Your task to perform on an android device: View the shopping cart on amazon. Search for "usb-c to usb-a" on amazon, select the first entry, add it to the cart, then select checkout. Image 0: 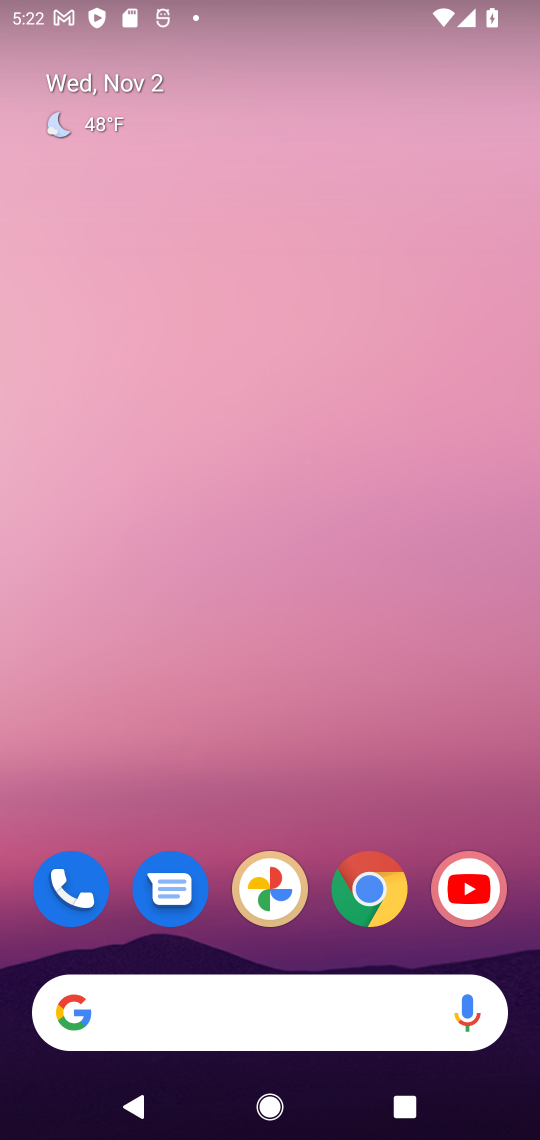
Step 0: click (370, 887)
Your task to perform on an android device: View the shopping cart on amazon. Search for "usb-c to usb-a" on amazon, select the first entry, add it to the cart, then select checkout. Image 1: 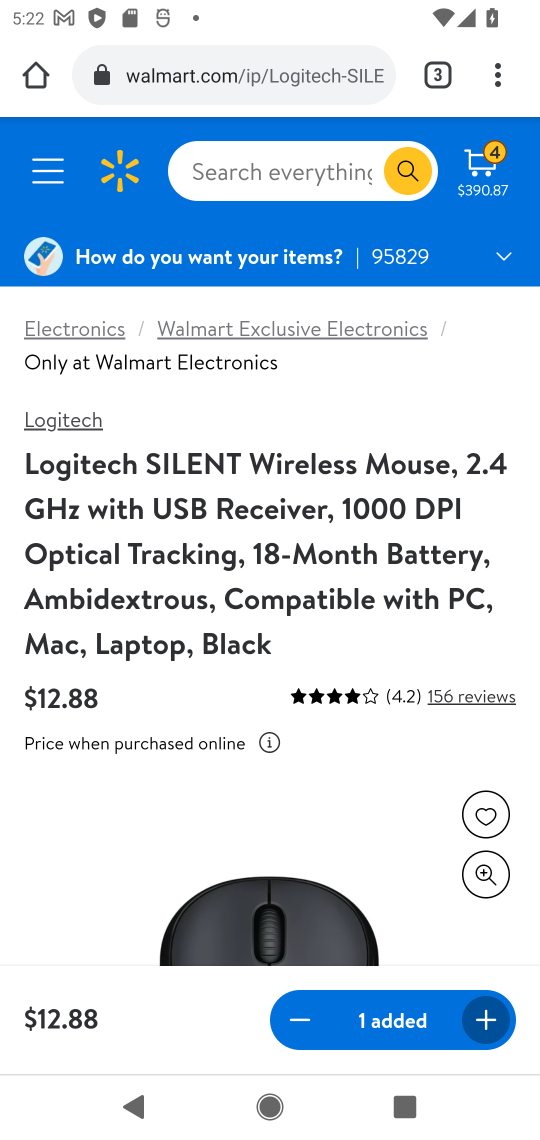
Step 1: drag from (500, 88) to (296, 147)
Your task to perform on an android device: View the shopping cart on amazon. Search for "usb-c to usb-a" on amazon, select the first entry, add it to the cart, then select checkout. Image 2: 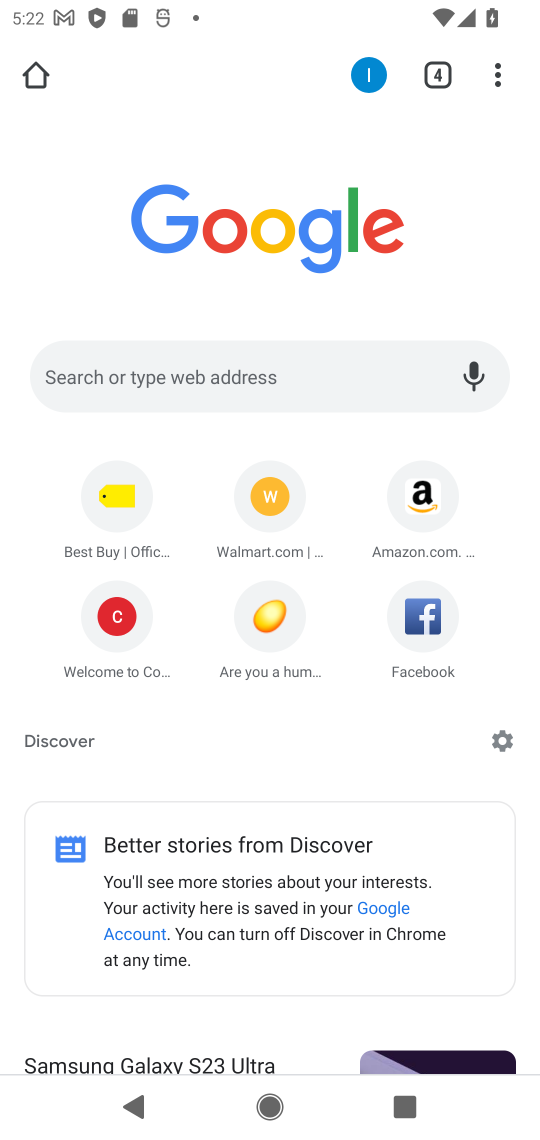
Step 2: click (412, 492)
Your task to perform on an android device: View the shopping cart on amazon. Search for "usb-c to usb-a" on amazon, select the first entry, add it to the cart, then select checkout. Image 3: 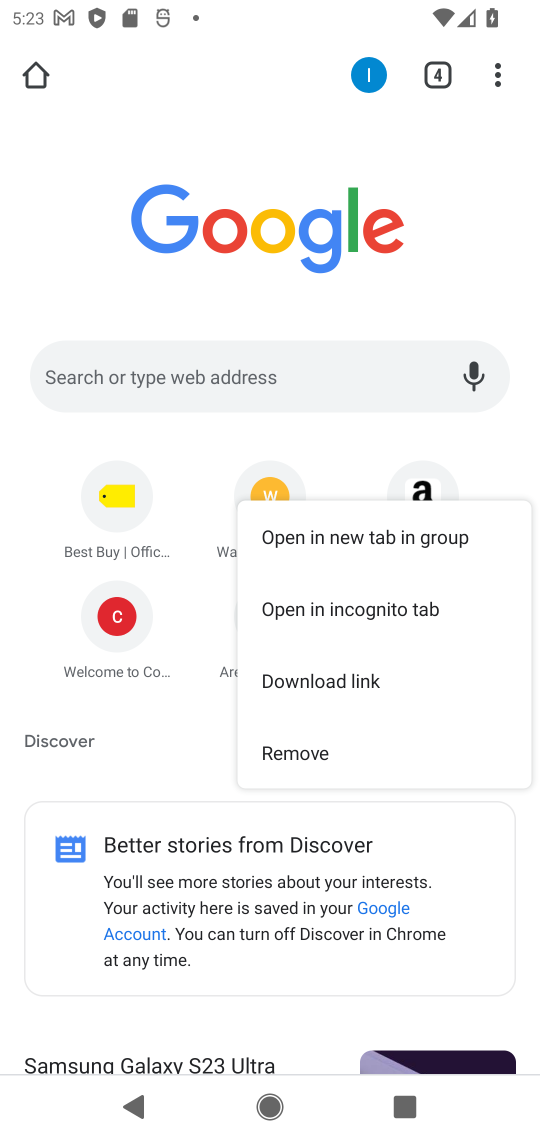
Step 3: click (423, 492)
Your task to perform on an android device: View the shopping cart on amazon. Search for "usb-c to usb-a" on amazon, select the first entry, add it to the cart, then select checkout. Image 4: 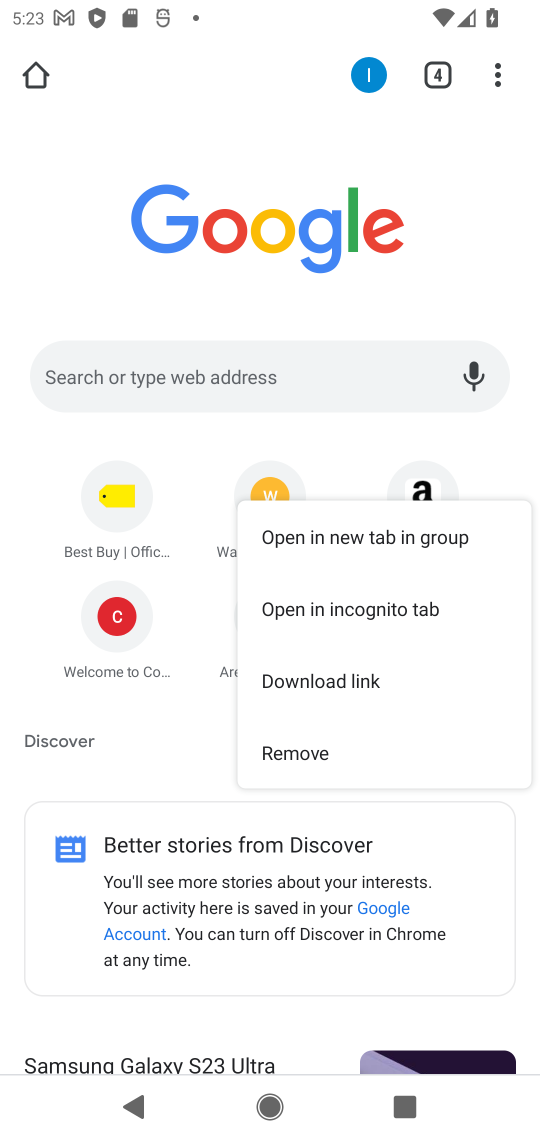
Step 4: click (423, 492)
Your task to perform on an android device: View the shopping cart on amazon. Search for "usb-c to usb-a" on amazon, select the first entry, add it to the cart, then select checkout. Image 5: 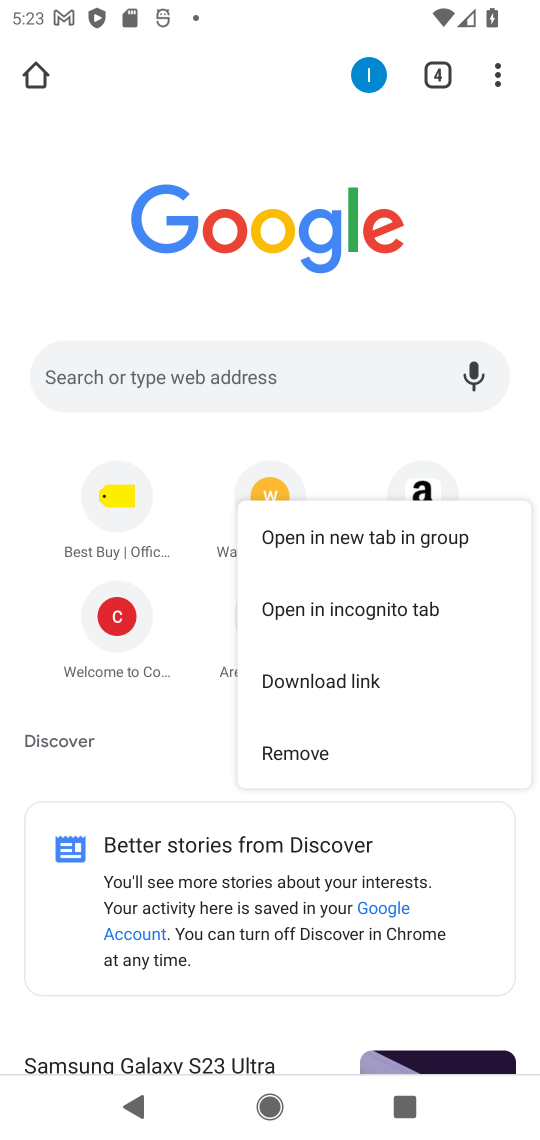
Step 5: drag from (333, 414) to (494, 58)
Your task to perform on an android device: View the shopping cart on amazon. Search for "usb-c to usb-a" on amazon, select the first entry, add it to the cart, then select checkout. Image 6: 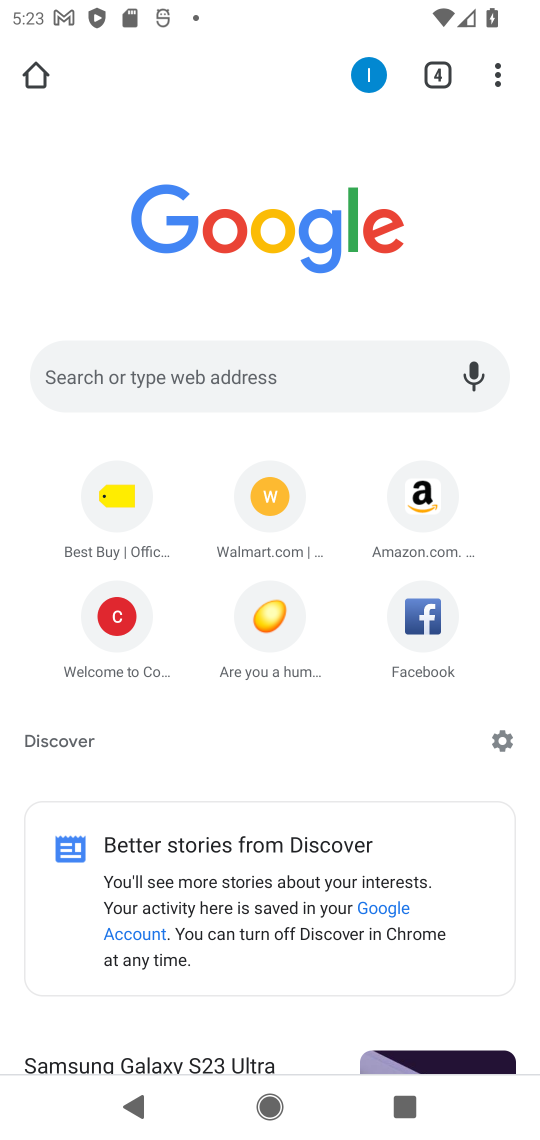
Step 6: click (422, 503)
Your task to perform on an android device: View the shopping cart on amazon. Search for "usb-c to usb-a" on amazon, select the first entry, add it to the cart, then select checkout. Image 7: 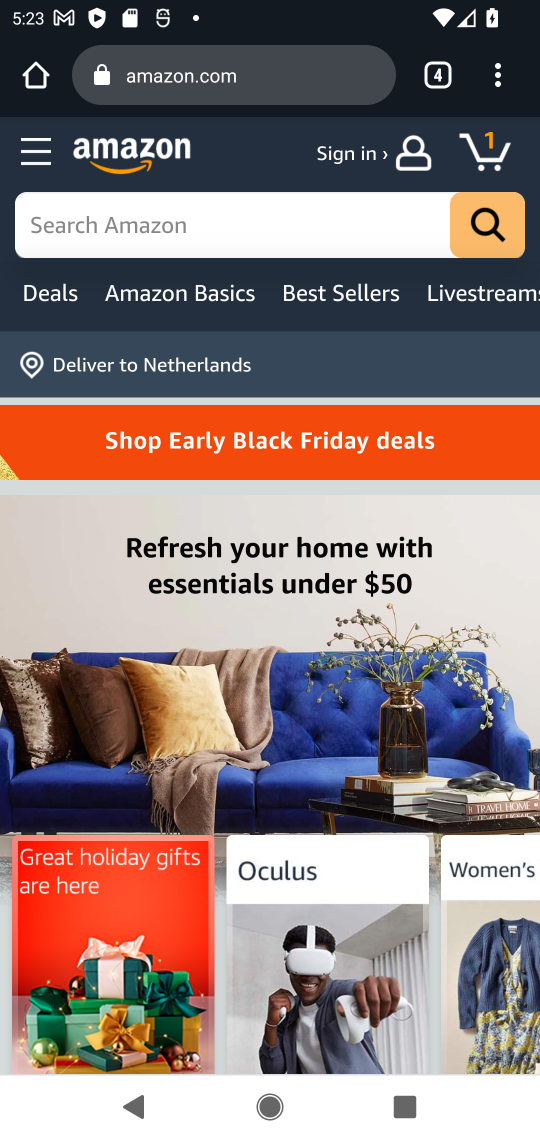
Step 7: click (176, 76)
Your task to perform on an android device: View the shopping cart on amazon. Search for "usb-c to usb-a" on amazon, select the first entry, add it to the cart, then select checkout. Image 8: 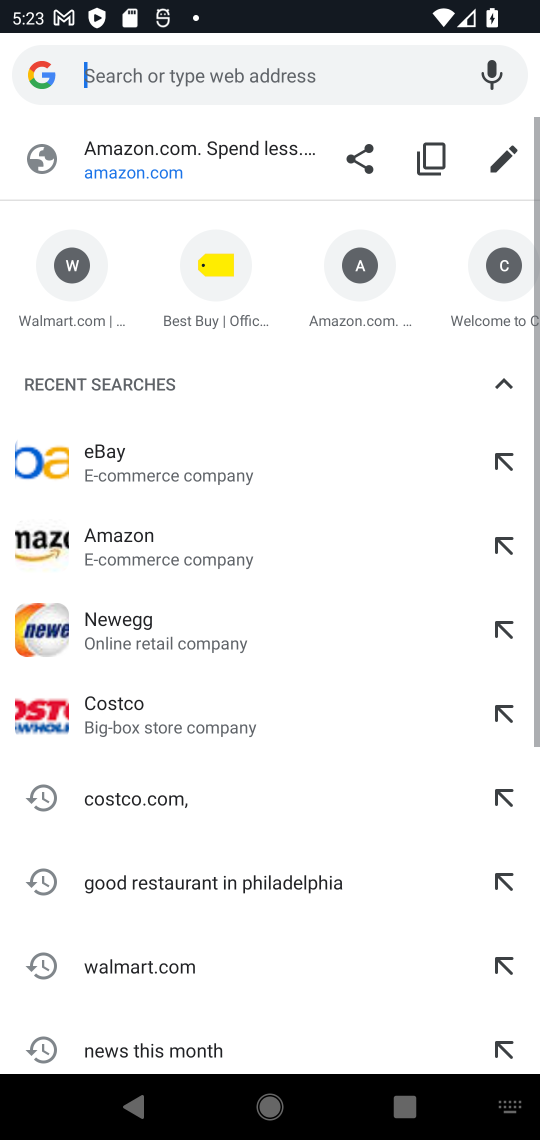
Step 8: press back button
Your task to perform on an android device: View the shopping cart on amazon. Search for "usb-c to usb-a" on amazon, select the first entry, add it to the cart, then select checkout. Image 9: 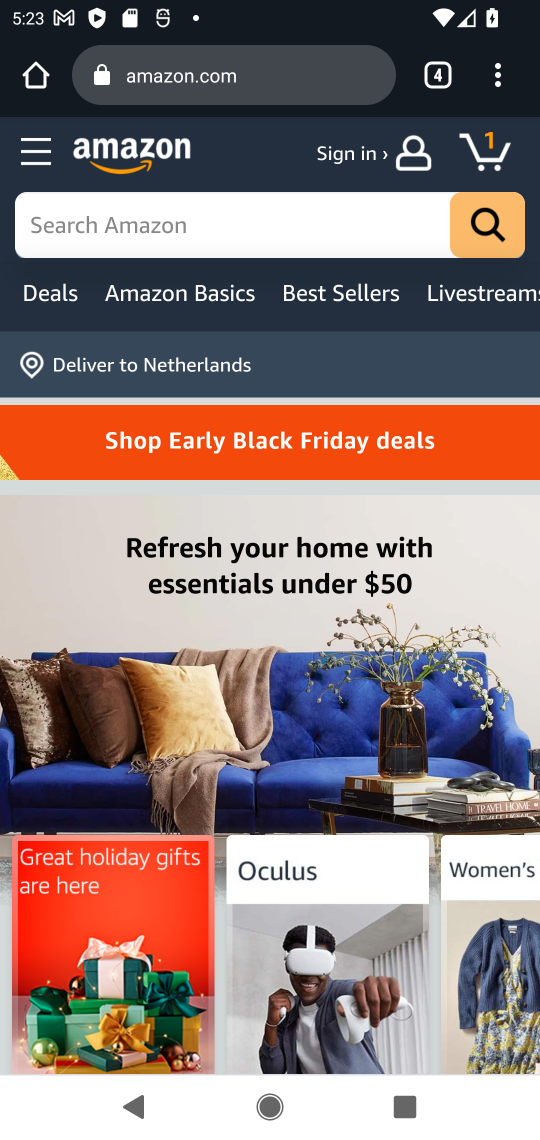
Step 9: click (210, 231)
Your task to perform on an android device: View the shopping cart on amazon. Search for "usb-c to usb-a" on amazon, select the first entry, add it to the cart, then select checkout. Image 10: 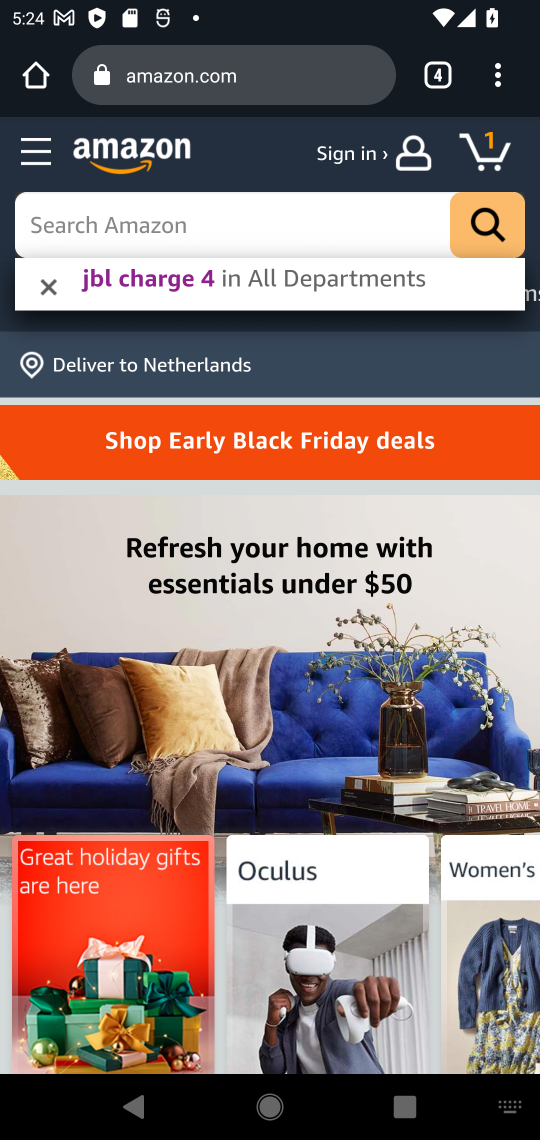
Step 10: type "usb-c to usb-a"
Your task to perform on an android device: View the shopping cart on amazon. Search for "usb-c to usb-a" on amazon, select the first entry, add it to the cart, then select checkout. Image 11: 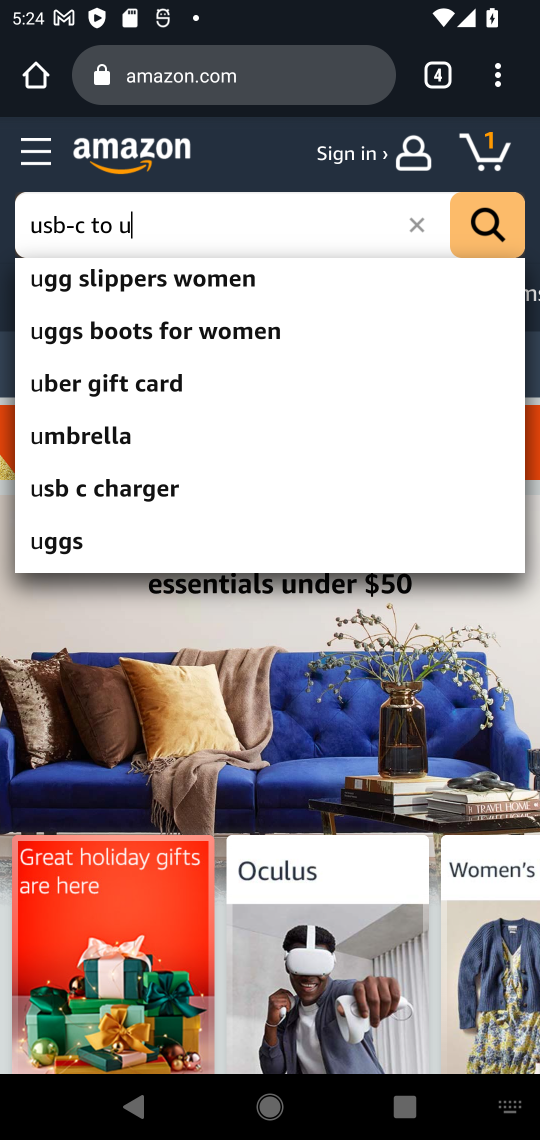
Step 11: press enter
Your task to perform on an android device: View the shopping cart on amazon. Search for "usb-c to usb-a" on amazon, select the first entry, add it to the cart, then select checkout. Image 12: 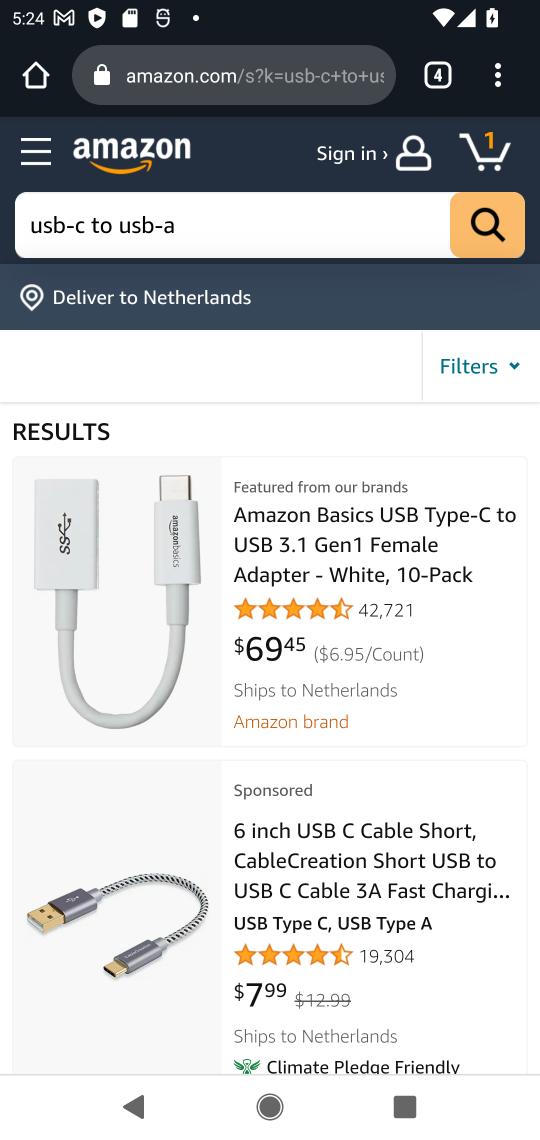
Step 12: click (346, 592)
Your task to perform on an android device: View the shopping cart on amazon. Search for "usb-c to usb-a" on amazon, select the first entry, add it to the cart, then select checkout. Image 13: 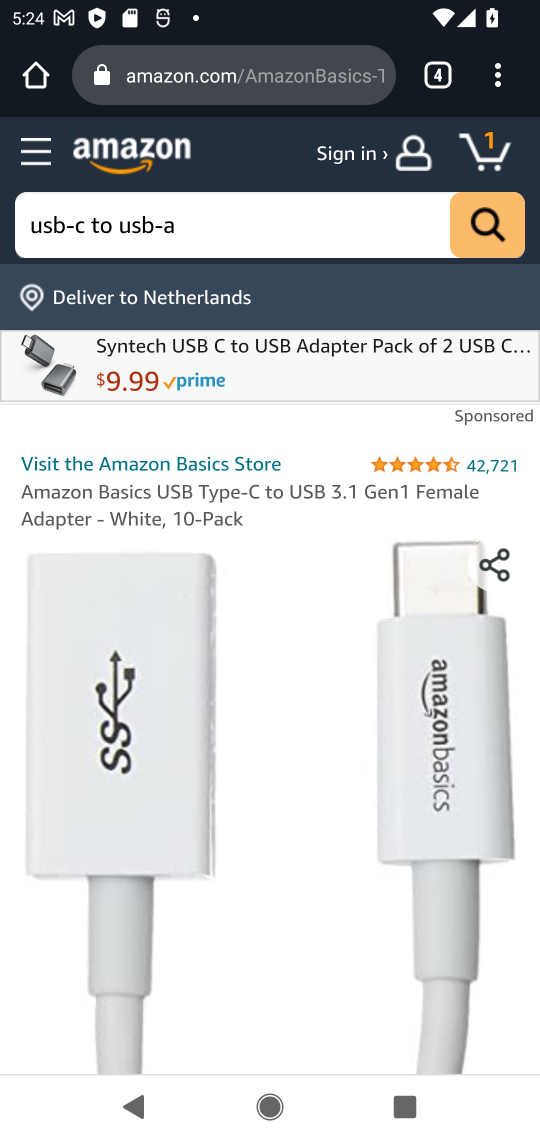
Step 13: drag from (235, 904) to (529, 413)
Your task to perform on an android device: View the shopping cart on amazon. Search for "usb-c to usb-a" on amazon, select the first entry, add it to the cart, then select checkout. Image 14: 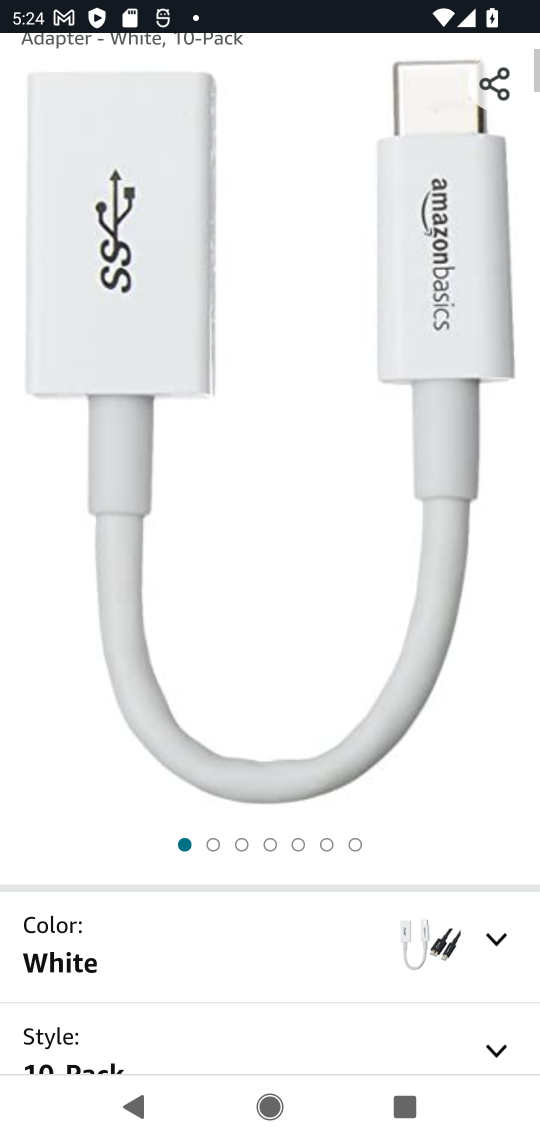
Step 14: drag from (228, 1003) to (487, 179)
Your task to perform on an android device: View the shopping cart on amazon. Search for "usb-c to usb-a" on amazon, select the first entry, add it to the cart, then select checkout. Image 15: 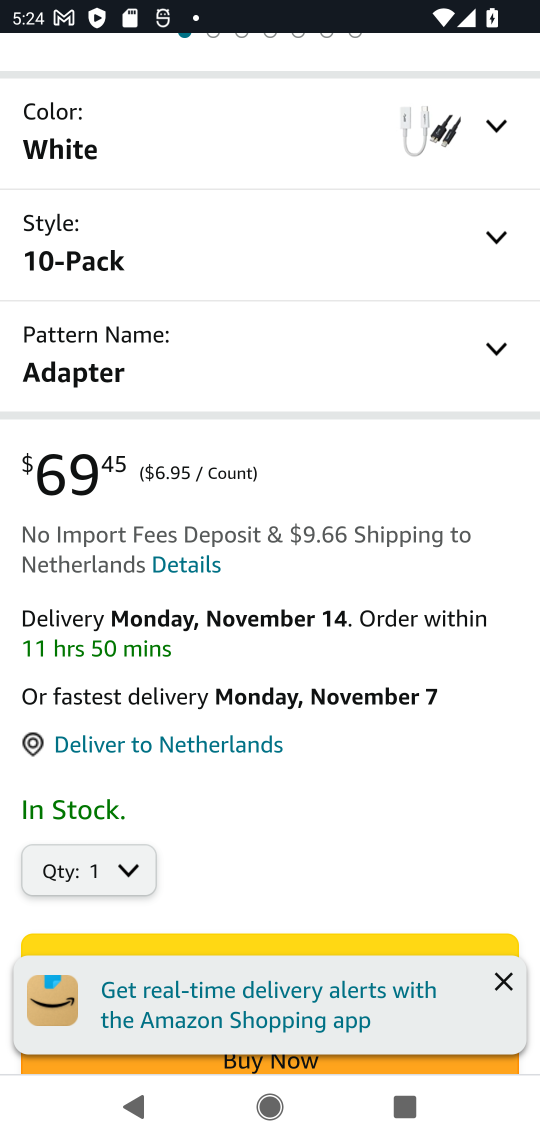
Step 15: drag from (315, 773) to (465, 309)
Your task to perform on an android device: View the shopping cart on amazon. Search for "usb-c to usb-a" on amazon, select the first entry, add it to the cart, then select checkout. Image 16: 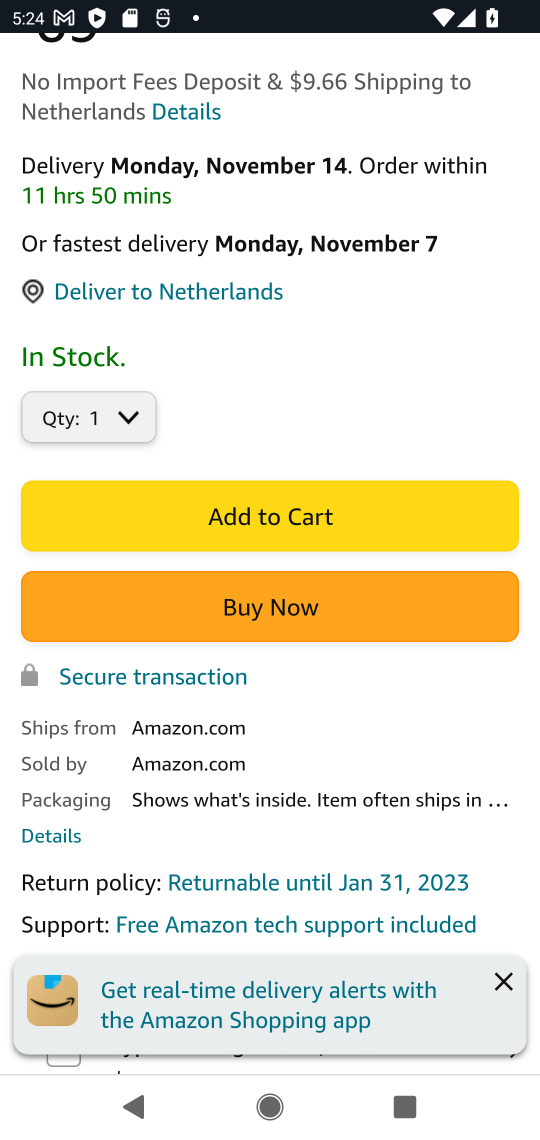
Step 16: click (325, 524)
Your task to perform on an android device: View the shopping cart on amazon. Search for "usb-c to usb-a" on amazon, select the first entry, add it to the cart, then select checkout. Image 17: 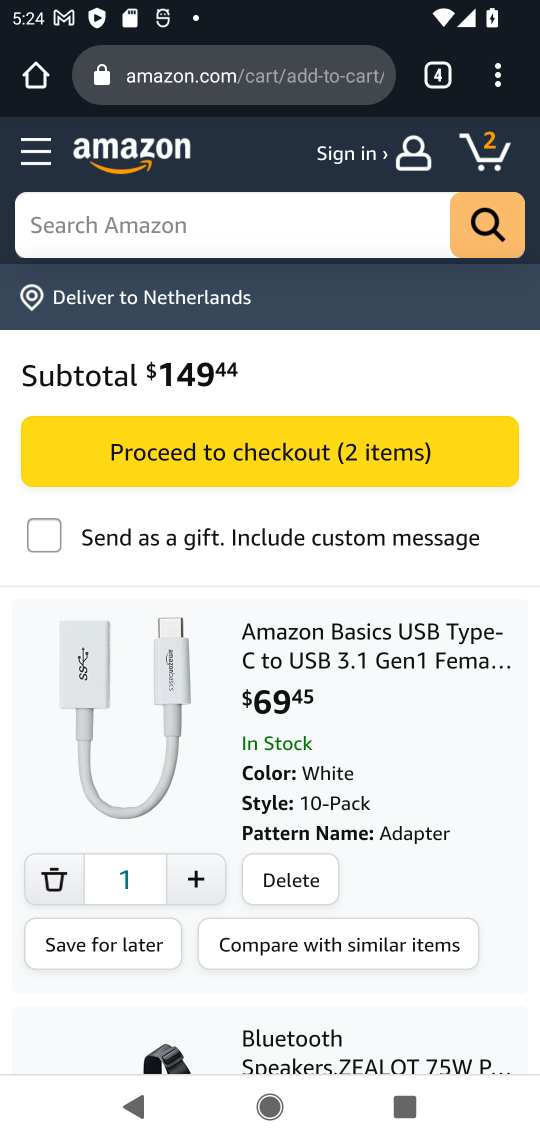
Step 17: click (237, 442)
Your task to perform on an android device: View the shopping cart on amazon. Search for "usb-c to usb-a" on amazon, select the first entry, add it to the cart, then select checkout. Image 18: 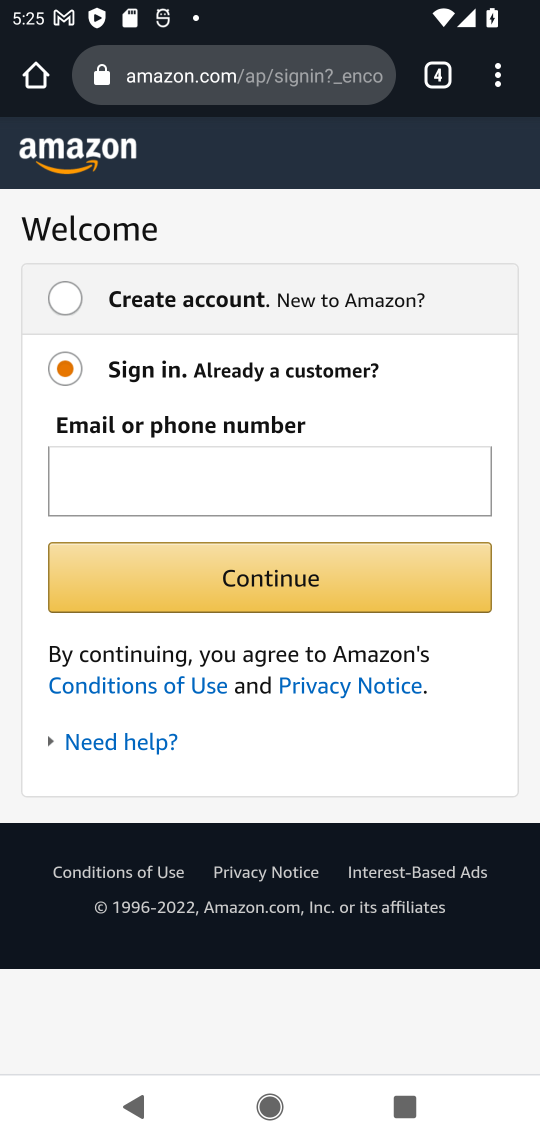
Step 18: task complete